Your task to perform on an android device: Open notification settings Image 0: 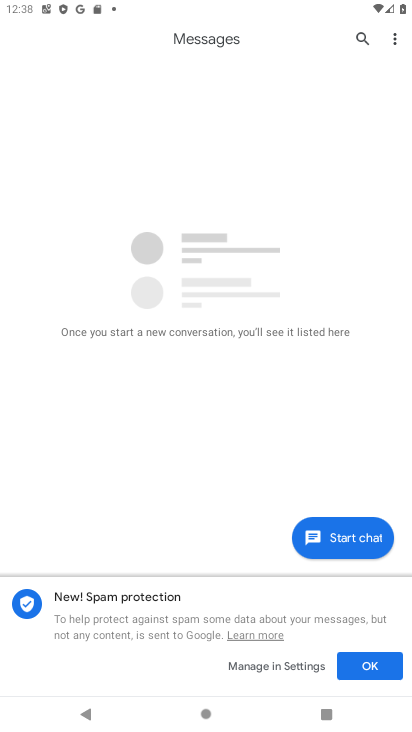
Step 0: press home button
Your task to perform on an android device: Open notification settings Image 1: 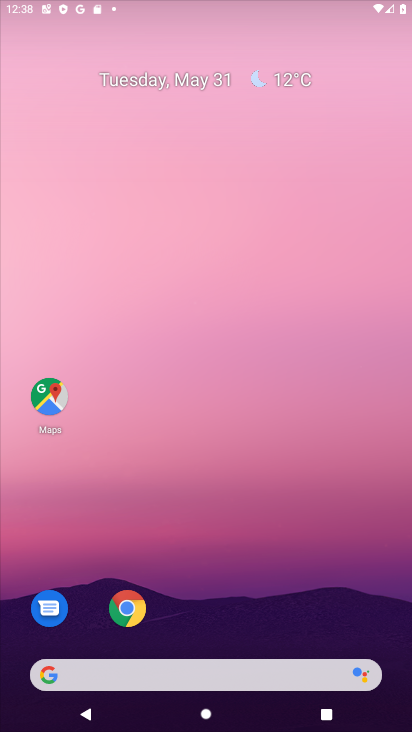
Step 1: drag from (222, 616) to (276, 64)
Your task to perform on an android device: Open notification settings Image 2: 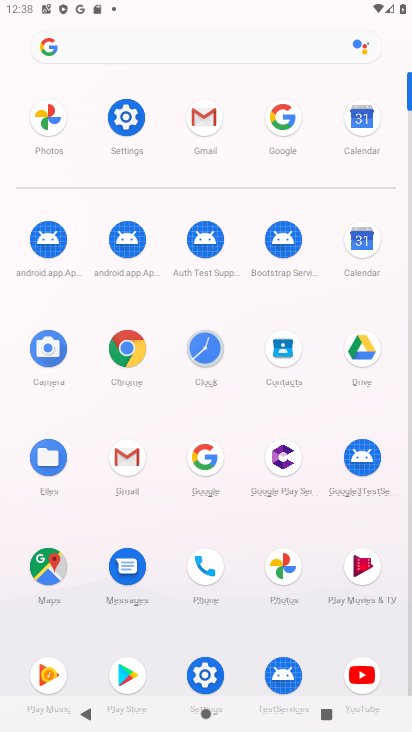
Step 2: click (127, 108)
Your task to perform on an android device: Open notification settings Image 3: 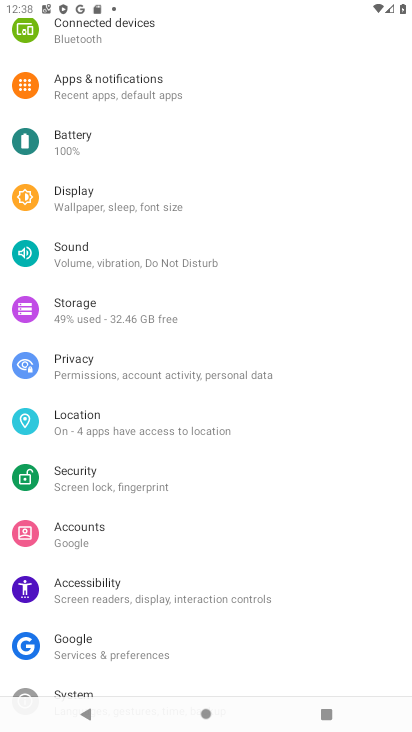
Step 3: click (83, 83)
Your task to perform on an android device: Open notification settings Image 4: 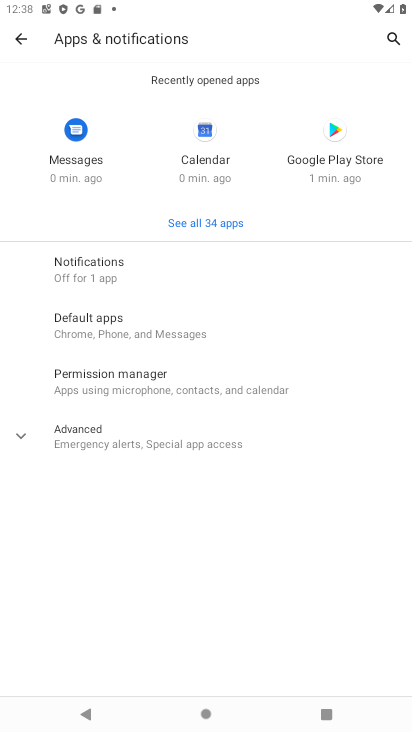
Step 4: click (102, 261)
Your task to perform on an android device: Open notification settings Image 5: 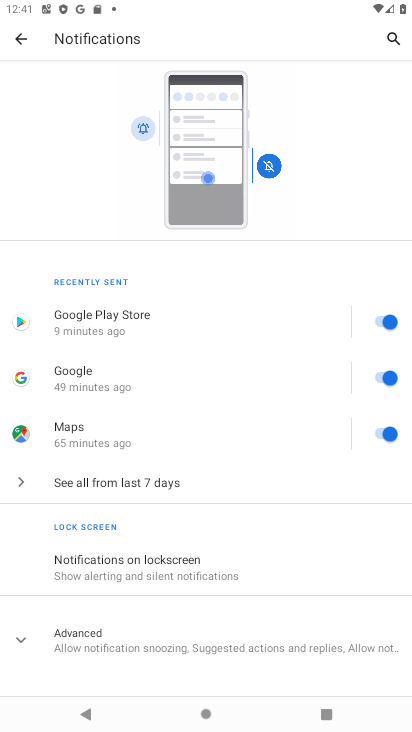
Step 5: task complete